Your task to perform on an android device: add a contact Image 0: 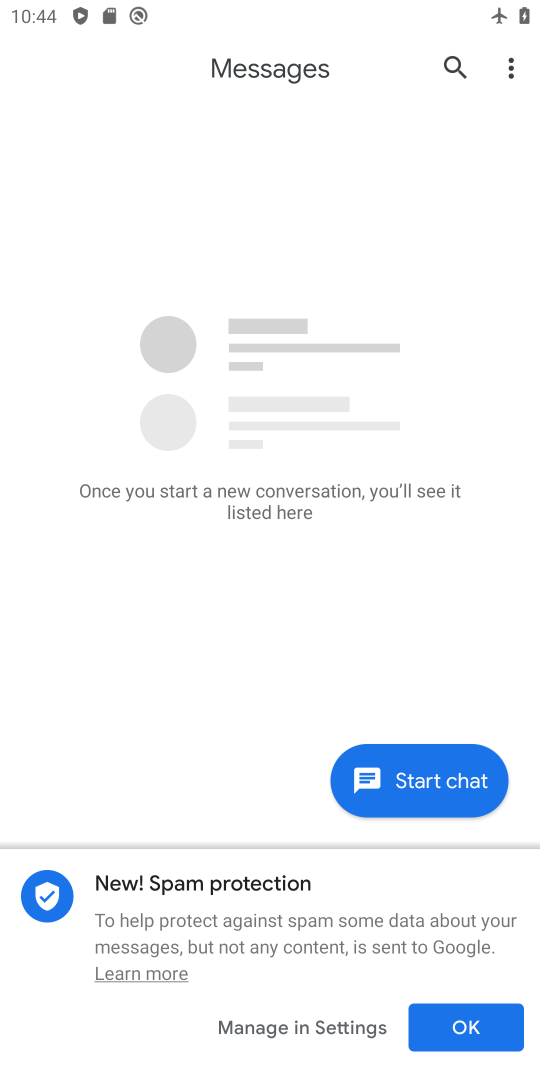
Step 0: press back button
Your task to perform on an android device: add a contact Image 1: 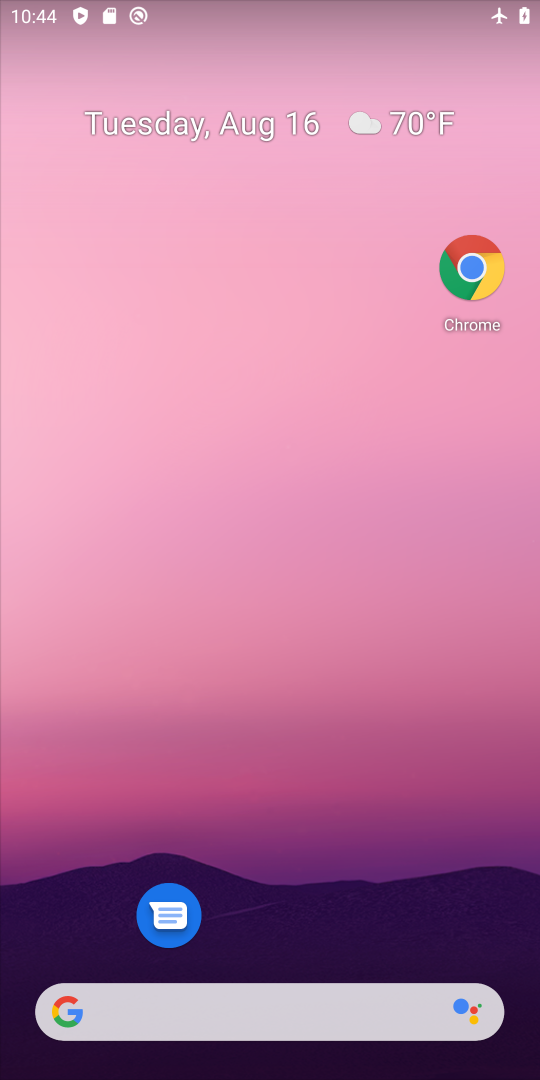
Step 1: drag from (291, 982) to (187, 42)
Your task to perform on an android device: add a contact Image 2: 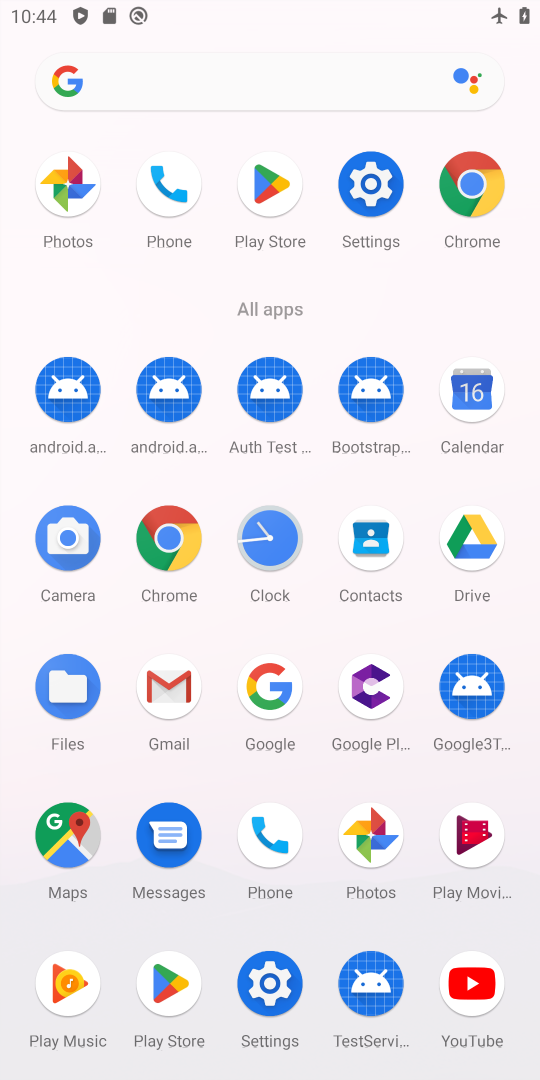
Step 2: click (263, 807)
Your task to perform on an android device: add a contact Image 3: 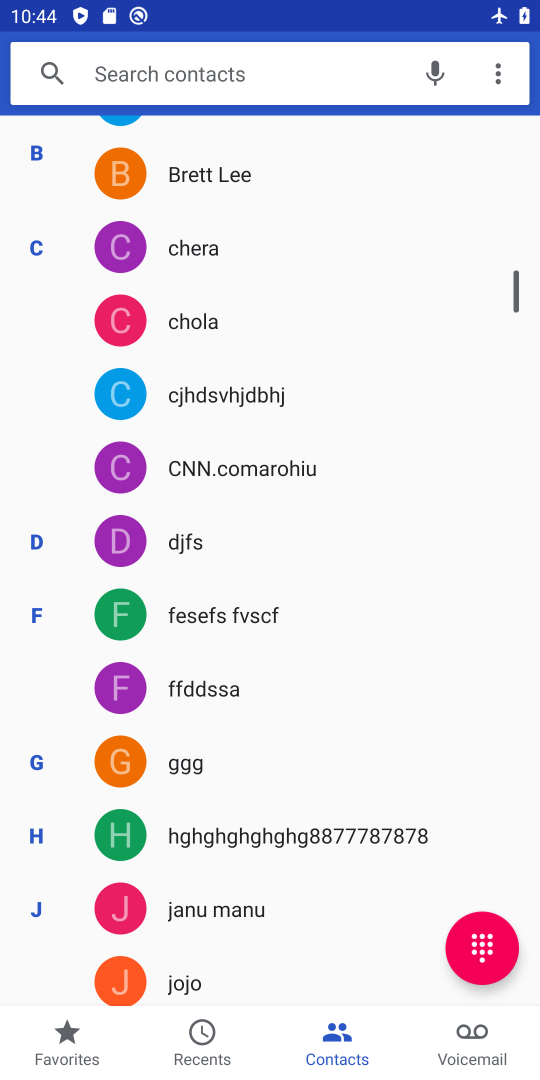
Step 3: drag from (190, 168) to (154, 988)
Your task to perform on an android device: add a contact Image 4: 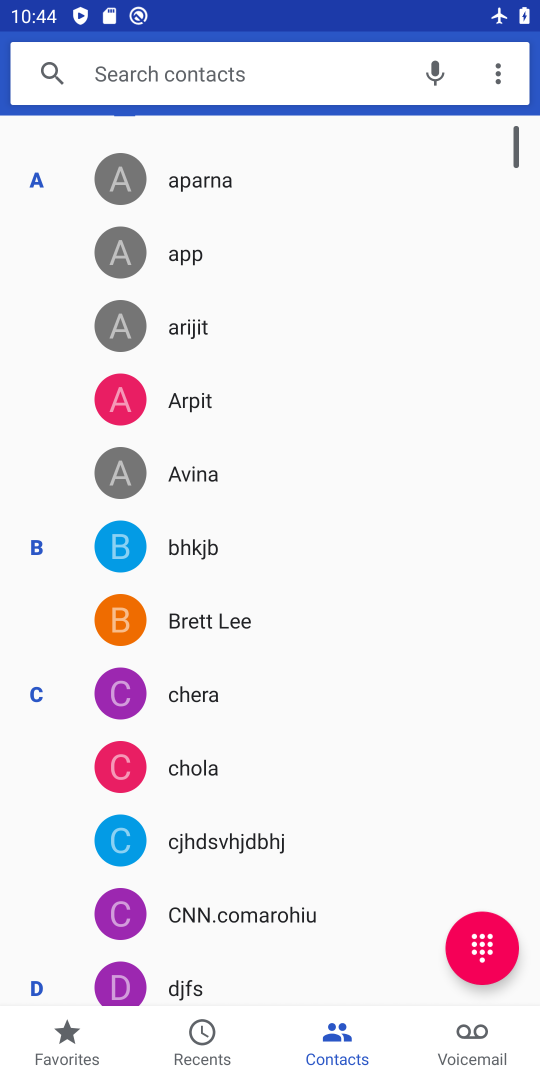
Step 4: drag from (163, 183) to (165, 755)
Your task to perform on an android device: add a contact Image 5: 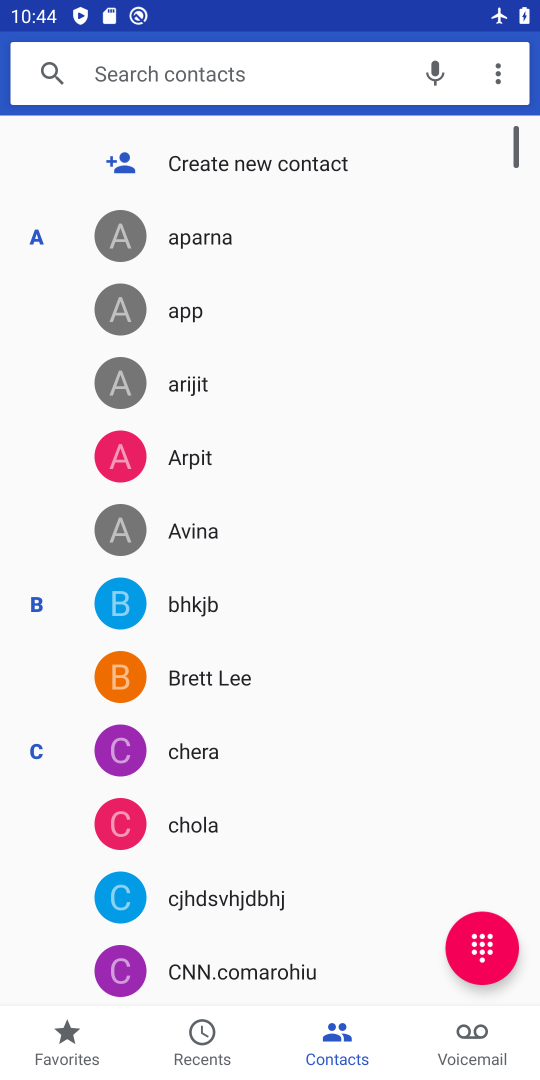
Step 5: click (150, 174)
Your task to perform on an android device: add a contact Image 6: 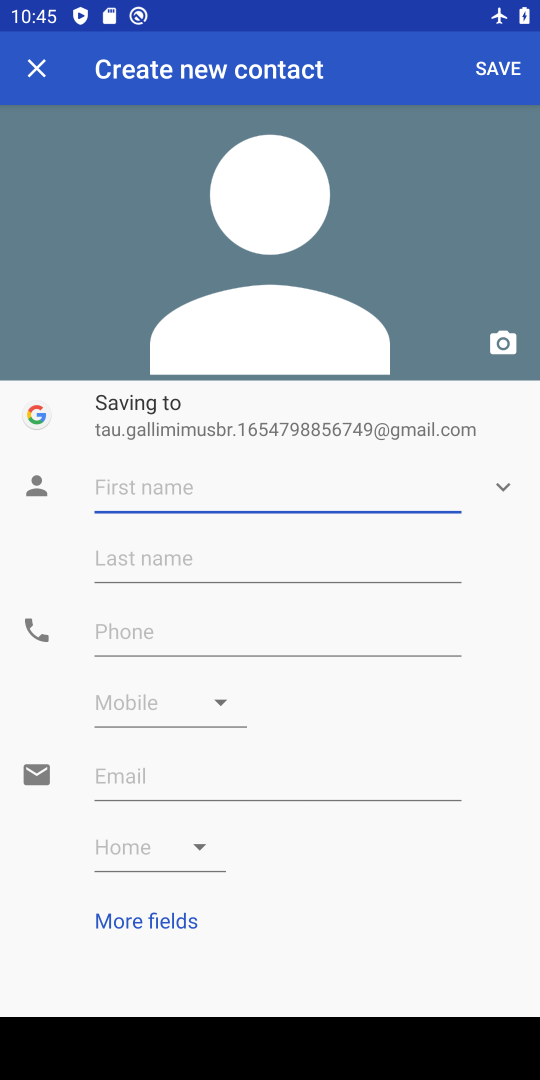
Step 6: type "ms"
Your task to perform on an android device: add a contact Image 7: 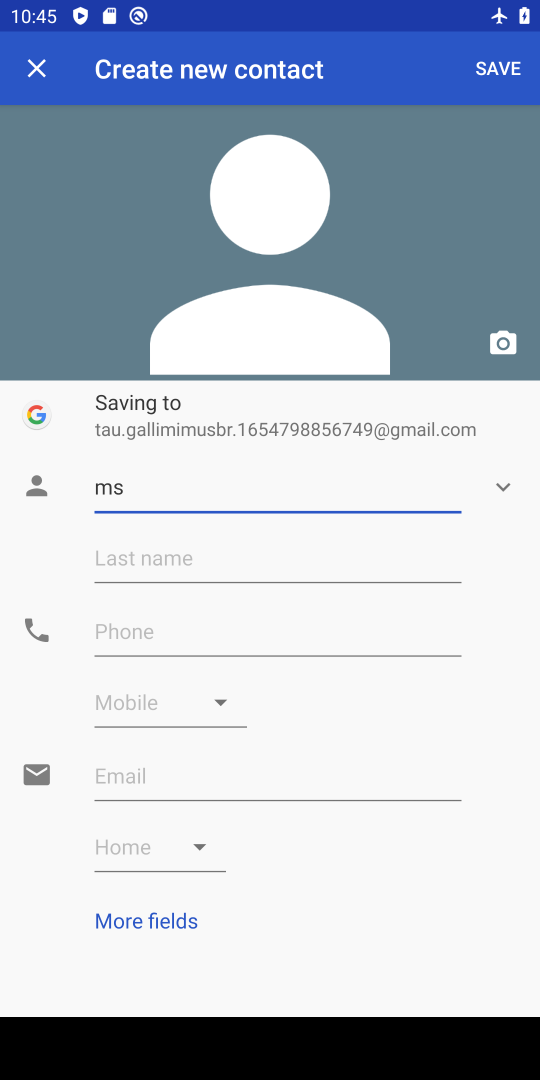
Step 7: click (288, 648)
Your task to perform on an android device: add a contact Image 8: 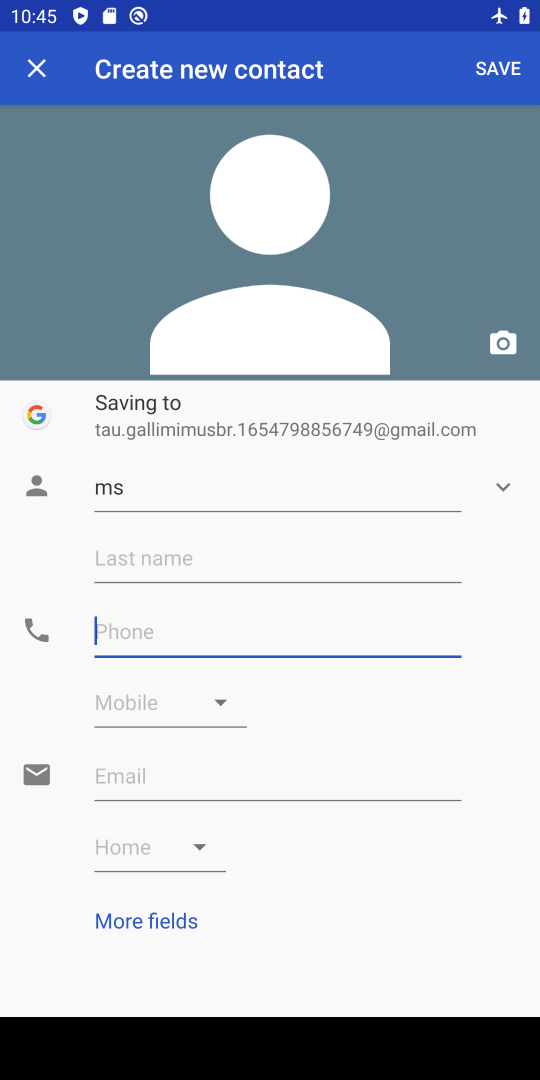
Step 8: type "44"
Your task to perform on an android device: add a contact Image 9: 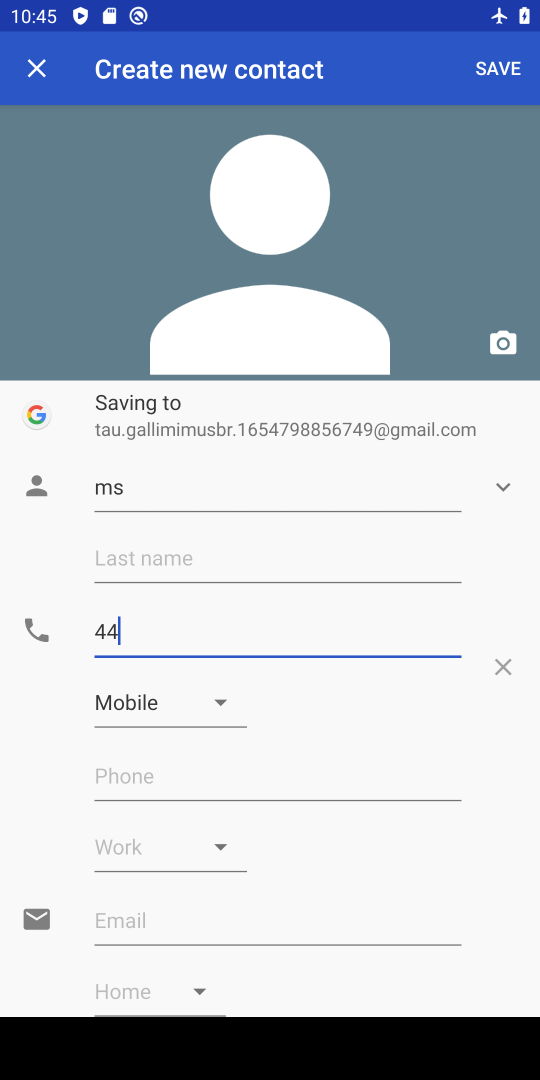
Step 9: click (501, 89)
Your task to perform on an android device: add a contact Image 10: 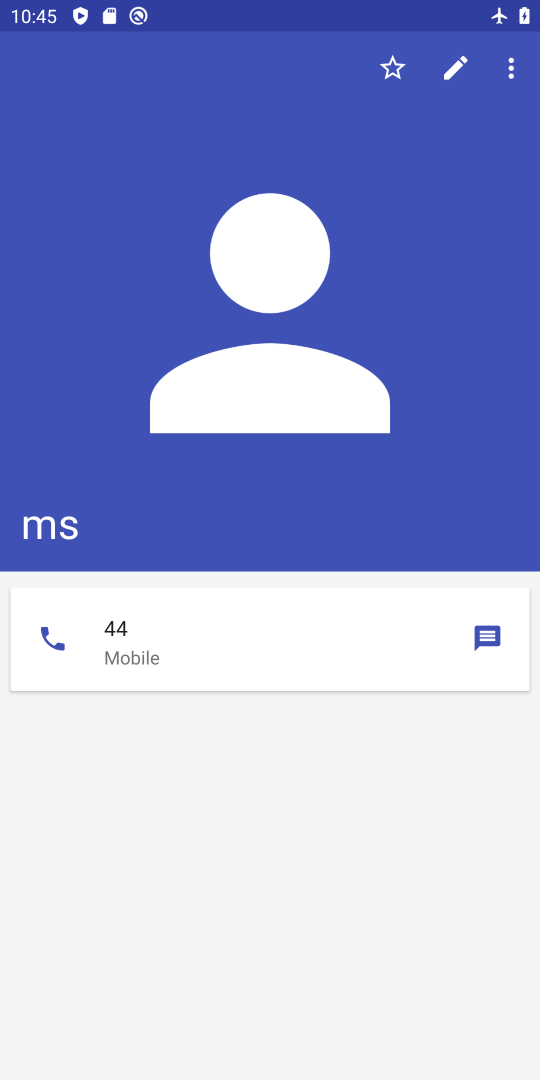
Step 10: task complete